Your task to perform on an android device: allow notifications from all sites in the chrome app Image 0: 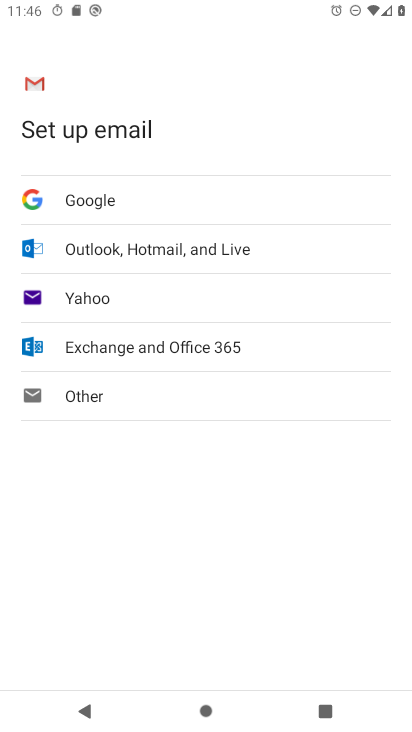
Step 0: press back button
Your task to perform on an android device: allow notifications from all sites in the chrome app Image 1: 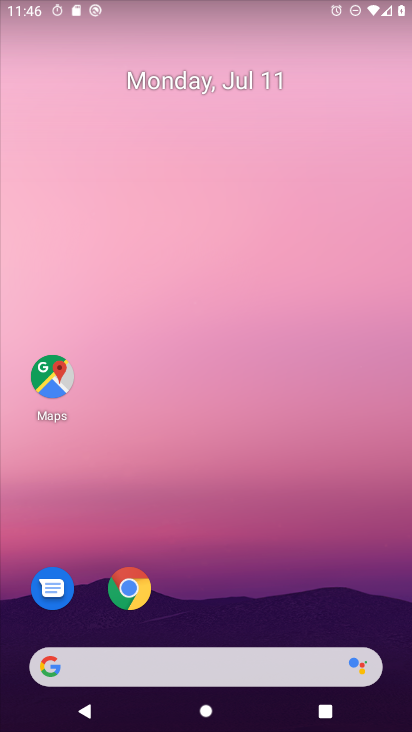
Step 1: click (127, 590)
Your task to perform on an android device: allow notifications from all sites in the chrome app Image 2: 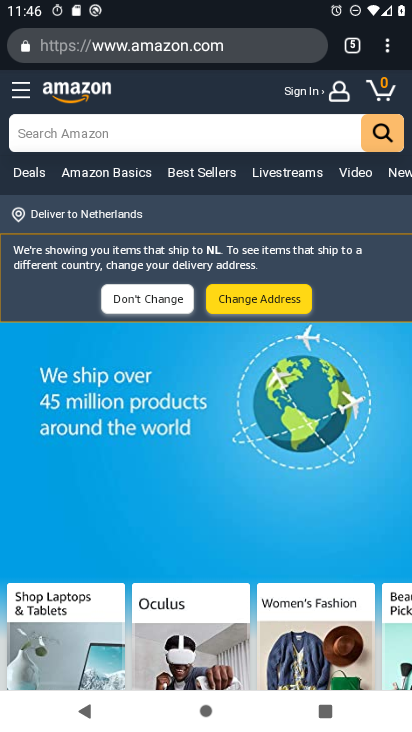
Step 2: drag from (388, 43) to (251, 558)
Your task to perform on an android device: allow notifications from all sites in the chrome app Image 3: 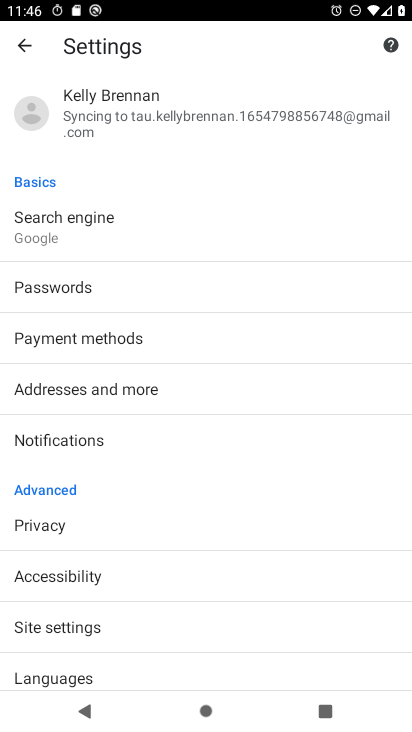
Step 3: click (80, 435)
Your task to perform on an android device: allow notifications from all sites in the chrome app Image 4: 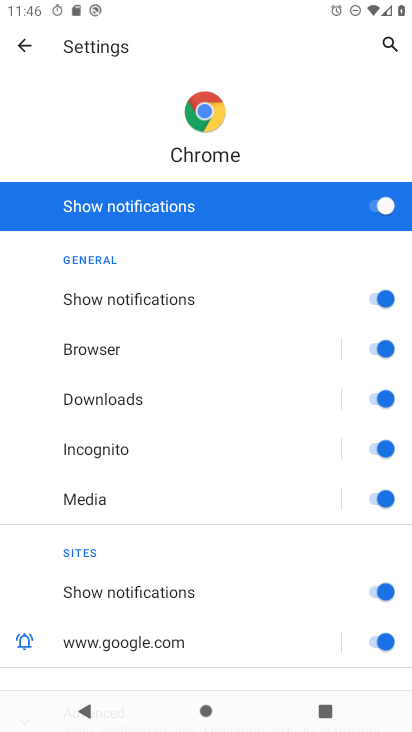
Step 4: task complete